Your task to perform on an android device: toggle location history Image 0: 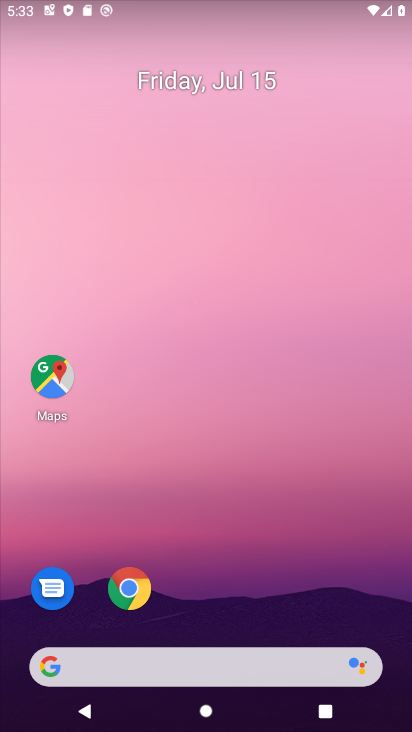
Step 0: drag from (345, 596) to (374, 182)
Your task to perform on an android device: toggle location history Image 1: 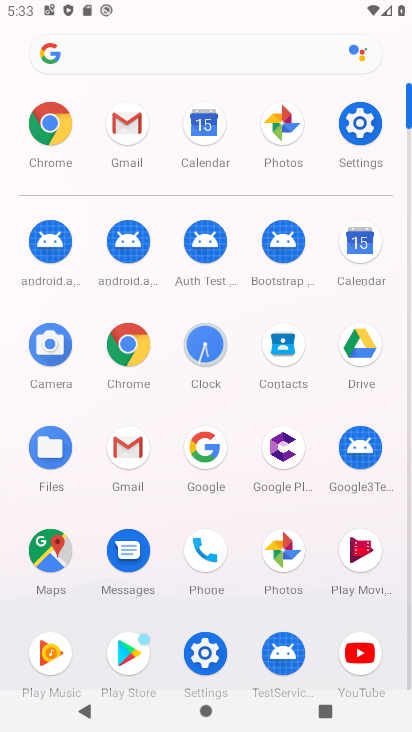
Step 1: click (370, 124)
Your task to perform on an android device: toggle location history Image 2: 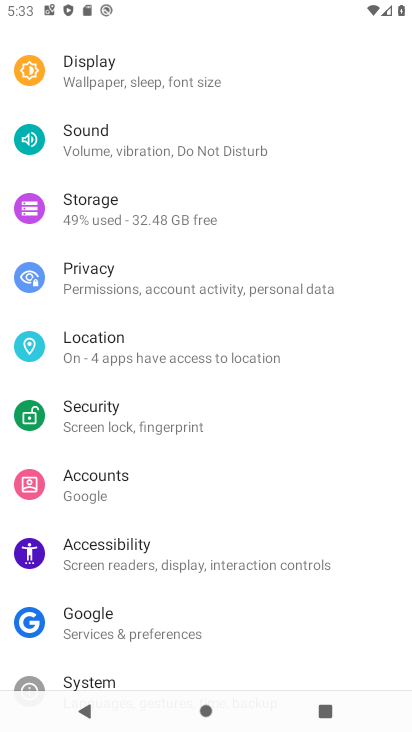
Step 2: click (157, 360)
Your task to perform on an android device: toggle location history Image 3: 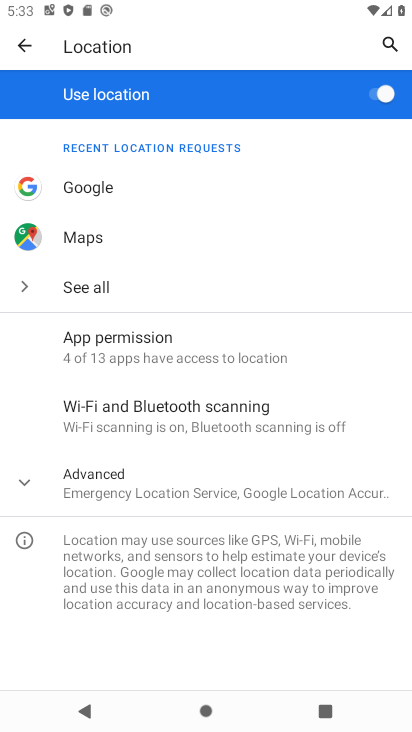
Step 3: click (166, 482)
Your task to perform on an android device: toggle location history Image 4: 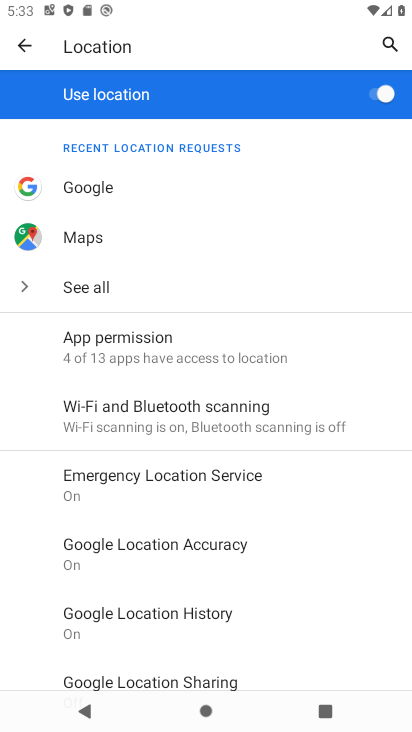
Step 4: click (188, 614)
Your task to perform on an android device: toggle location history Image 5: 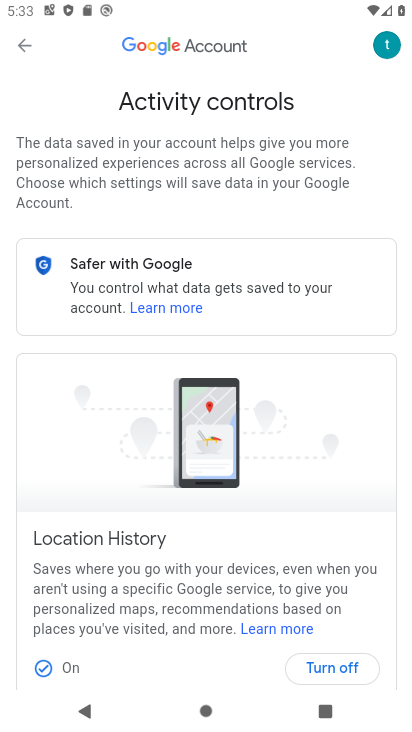
Step 5: click (322, 670)
Your task to perform on an android device: toggle location history Image 6: 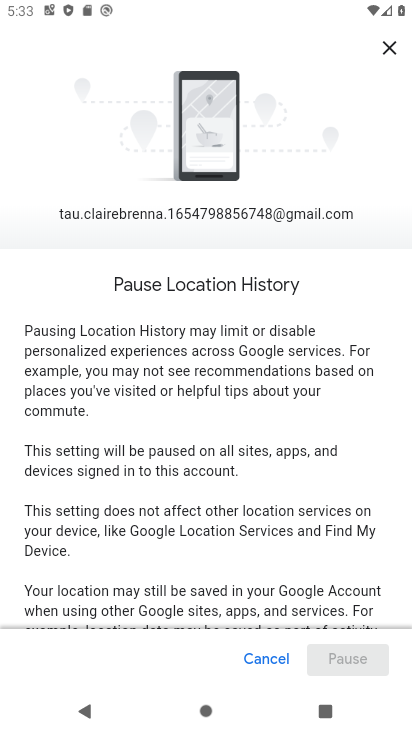
Step 6: drag from (307, 560) to (357, 213)
Your task to perform on an android device: toggle location history Image 7: 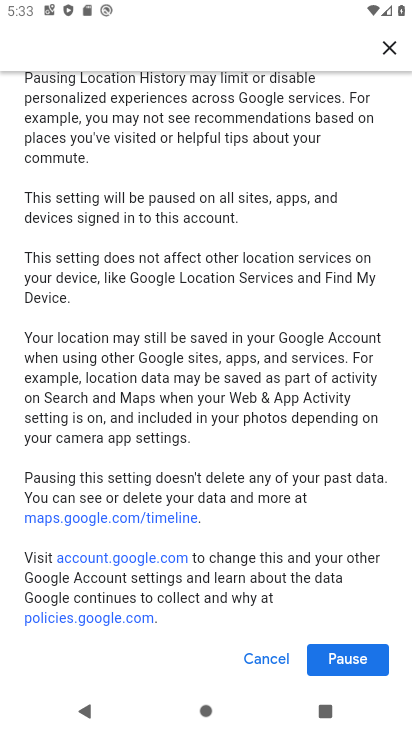
Step 7: click (345, 664)
Your task to perform on an android device: toggle location history Image 8: 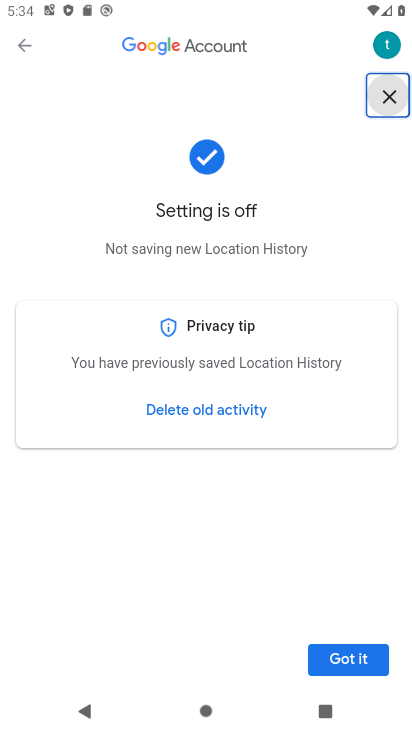
Step 8: task complete